Your task to perform on an android device: Search for pizza restaurants on Maps Image 0: 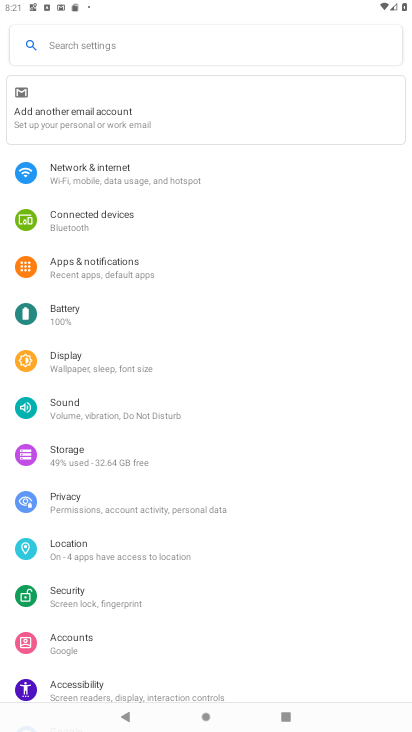
Step 0: press home button
Your task to perform on an android device: Search for pizza restaurants on Maps Image 1: 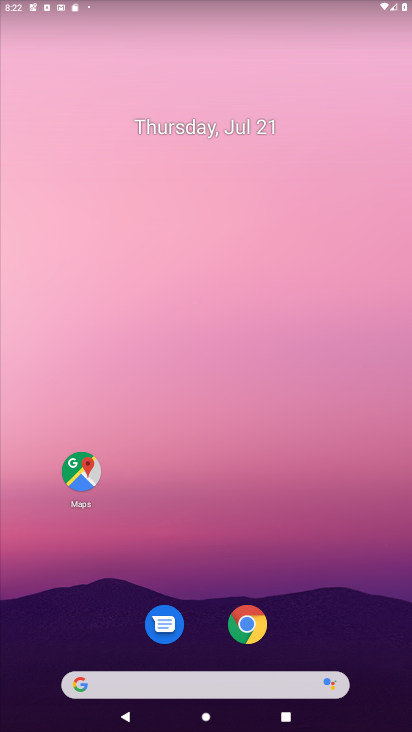
Step 1: click (113, 487)
Your task to perform on an android device: Search for pizza restaurants on Maps Image 2: 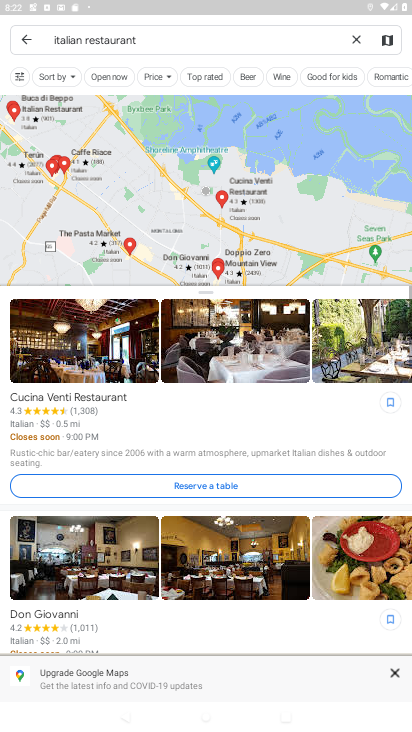
Step 2: click (358, 42)
Your task to perform on an android device: Search for pizza restaurants on Maps Image 3: 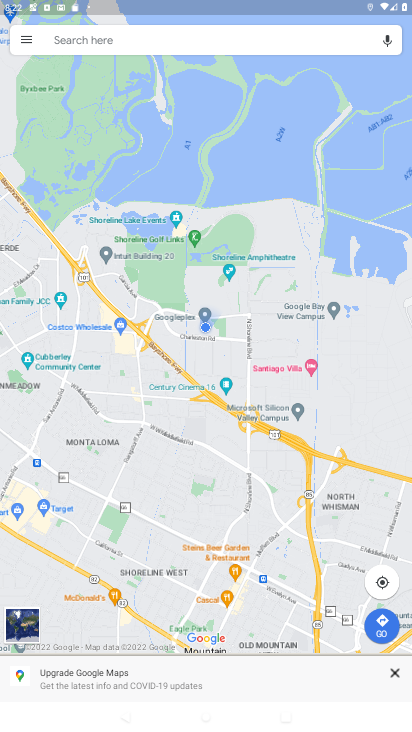
Step 3: click (199, 40)
Your task to perform on an android device: Search for pizza restaurants on Maps Image 4: 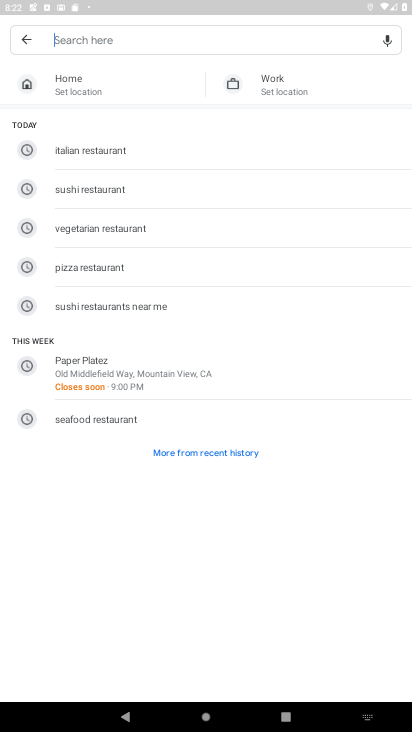
Step 4: type "pizza restaurants"
Your task to perform on an android device: Search for pizza restaurants on Maps Image 5: 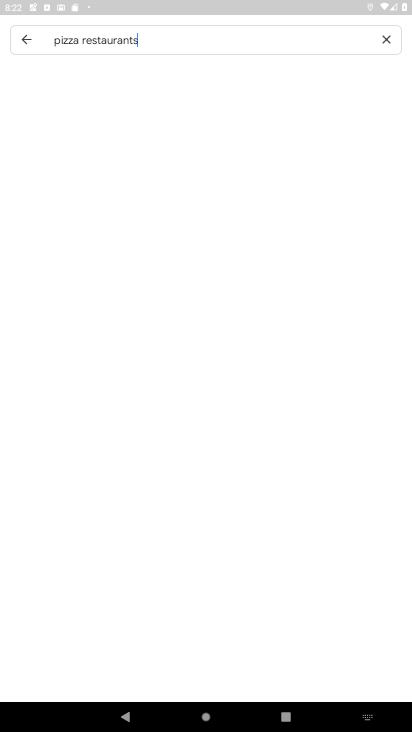
Step 5: type ""
Your task to perform on an android device: Search for pizza restaurants on Maps Image 6: 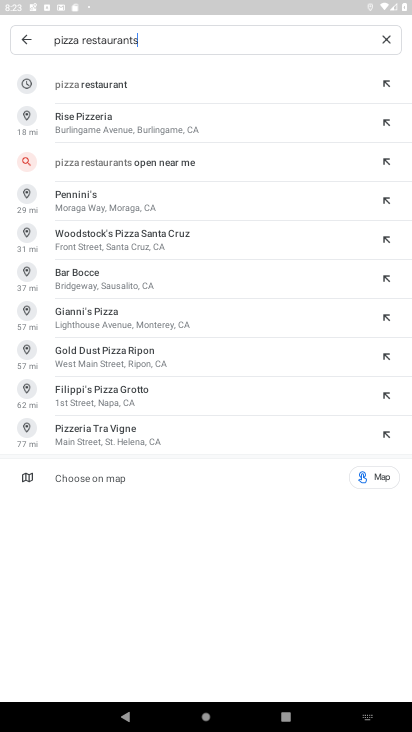
Step 6: click (104, 84)
Your task to perform on an android device: Search for pizza restaurants on Maps Image 7: 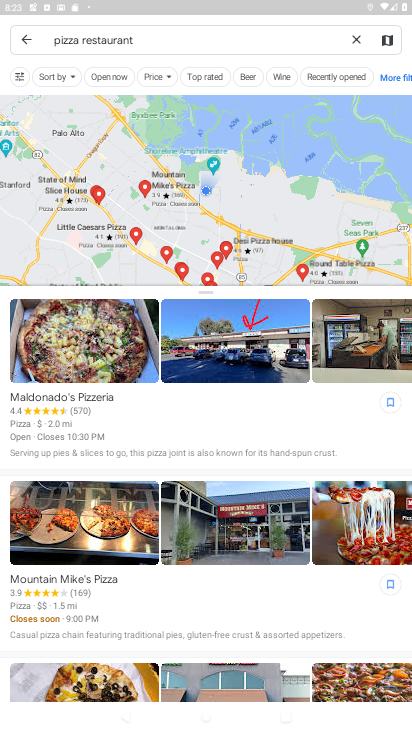
Step 7: task complete